Your task to perform on an android device: Go to network settings Image 0: 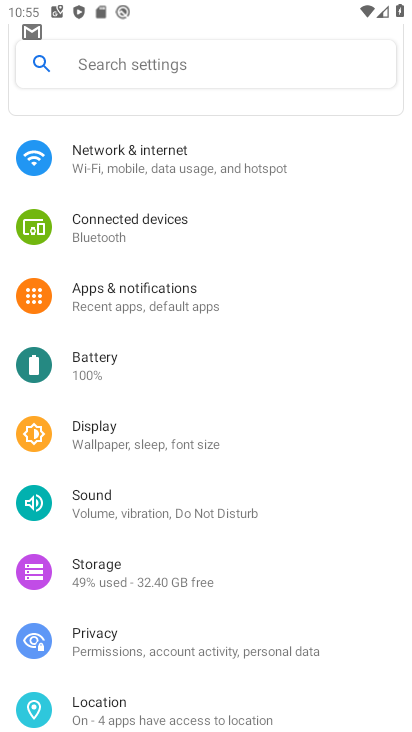
Step 0: press home button
Your task to perform on an android device: Go to network settings Image 1: 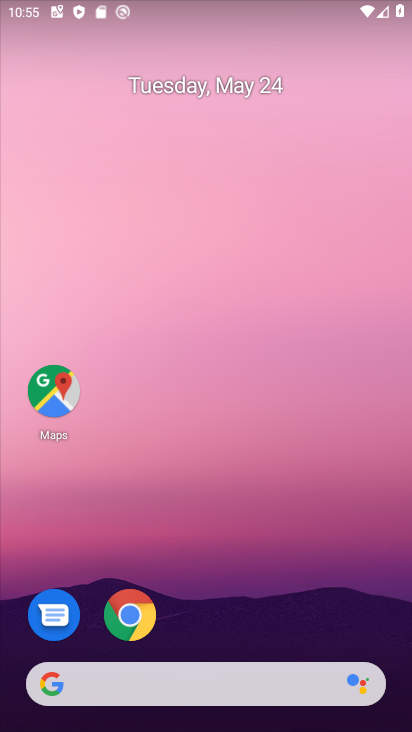
Step 1: press home button
Your task to perform on an android device: Go to network settings Image 2: 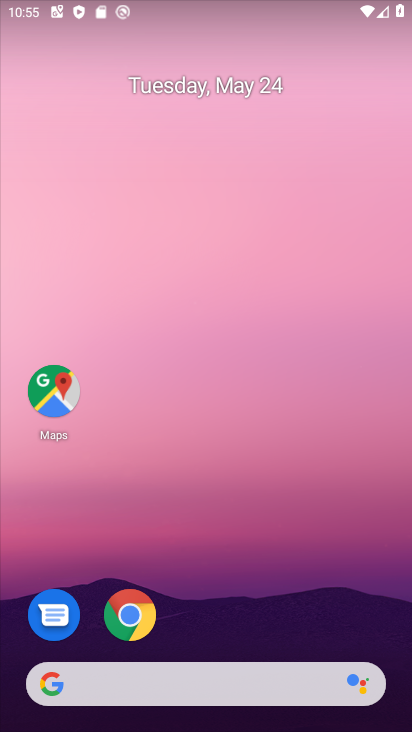
Step 2: press home button
Your task to perform on an android device: Go to network settings Image 3: 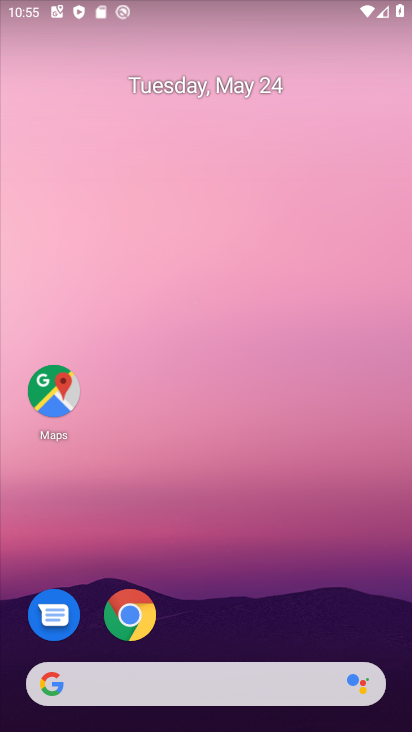
Step 3: press home button
Your task to perform on an android device: Go to network settings Image 4: 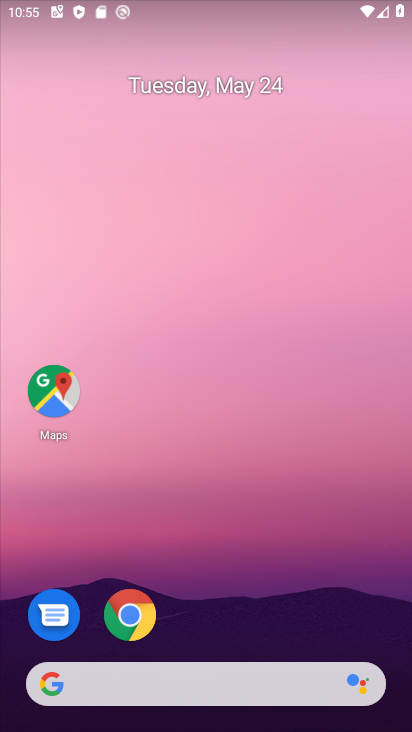
Step 4: press home button
Your task to perform on an android device: Go to network settings Image 5: 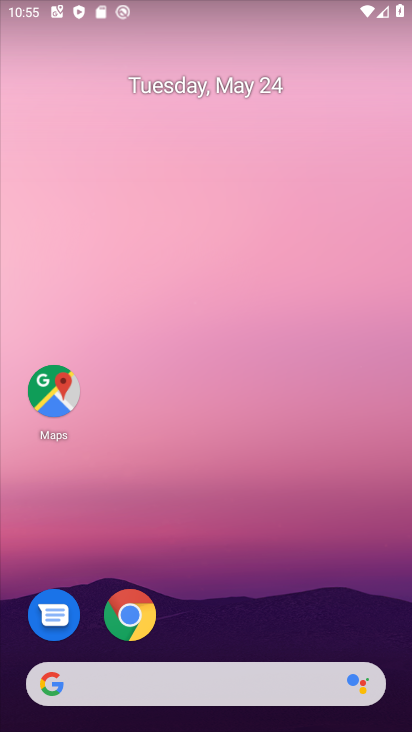
Step 5: drag from (268, 521) to (254, 272)
Your task to perform on an android device: Go to network settings Image 6: 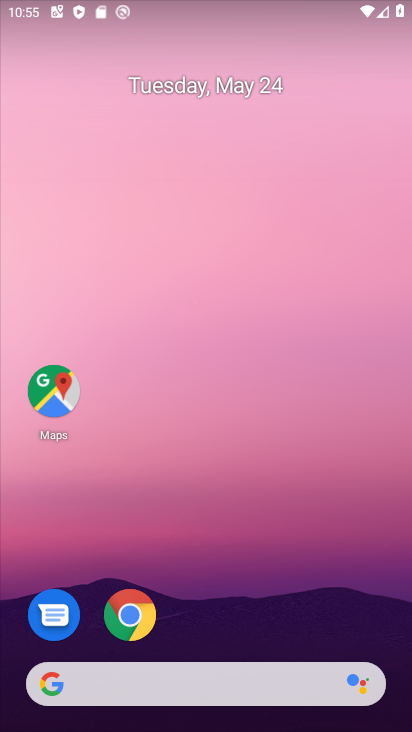
Step 6: drag from (265, 601) to (195, 224)
Your task to perform on an android device: Go to network settings Image 7: 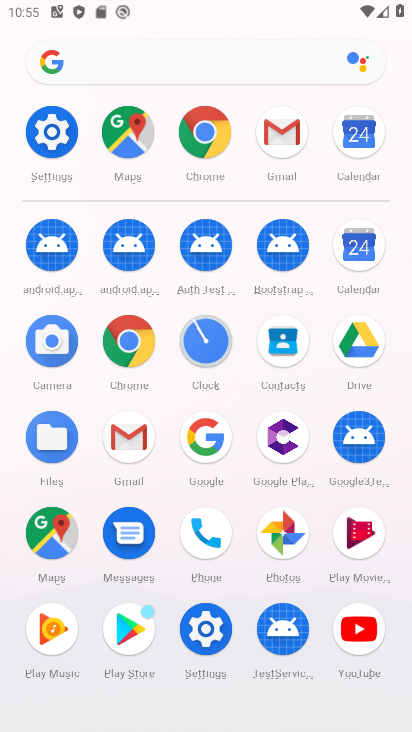
Step 7: click (273, 144)
Your task to perform on an android device: Go to network settings Image 8: 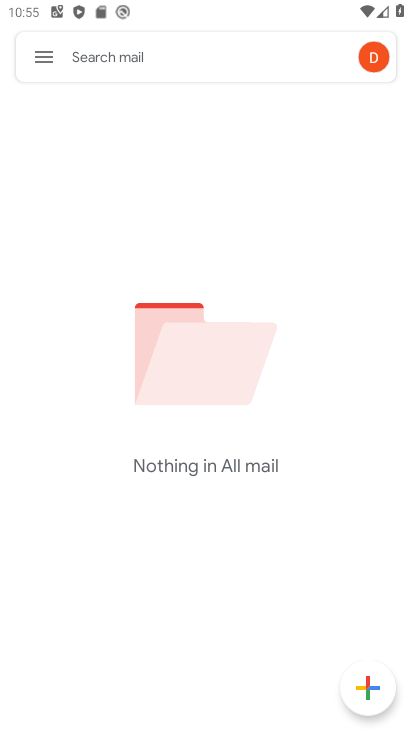
Step 8: click (48, 57)
Your task to perform on an android device: Go to network settings Image 9: 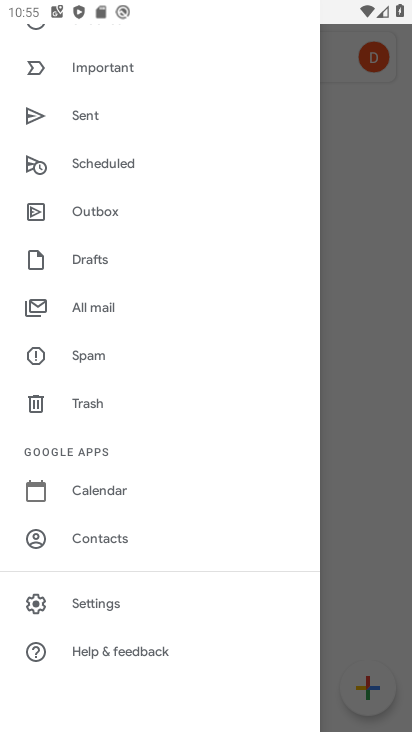
Step 9: click (84, 308)
Your task to perform on an android device: Go to network settings Image 10: 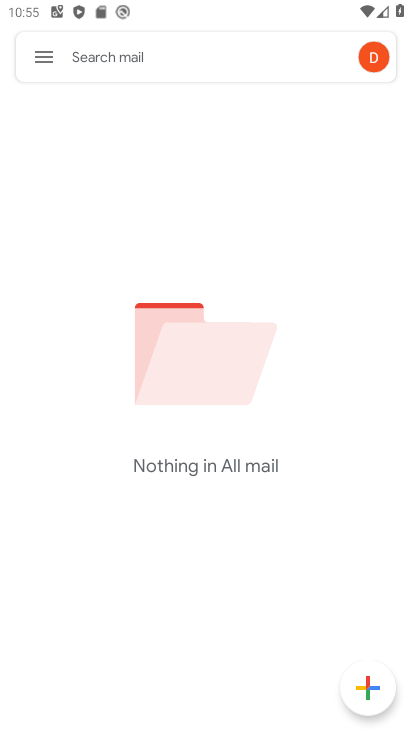
Step 10: press home button
Your task to perform on an android device: Go to network settings Image 11: 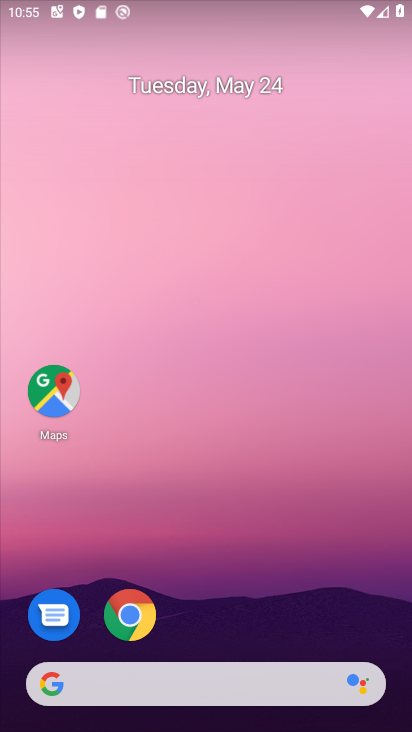
Step 11: drag from (276, 601) to (136, 166)
Your task to perform on an android device: Go to network settings Image 12: 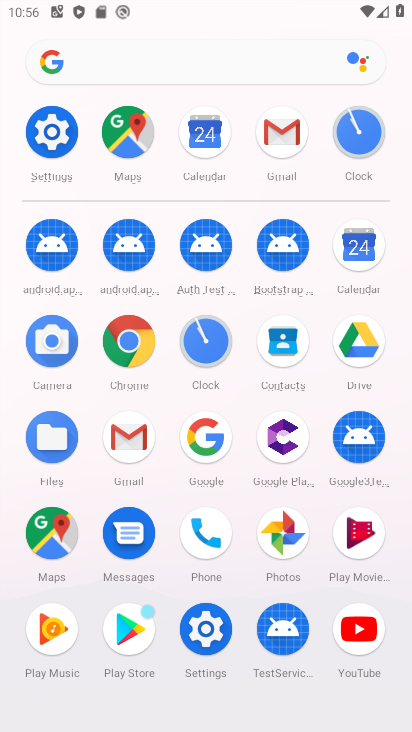
Step 12: click (67, 168)
Your task to perform on an android device: Go to network settings Image 13: 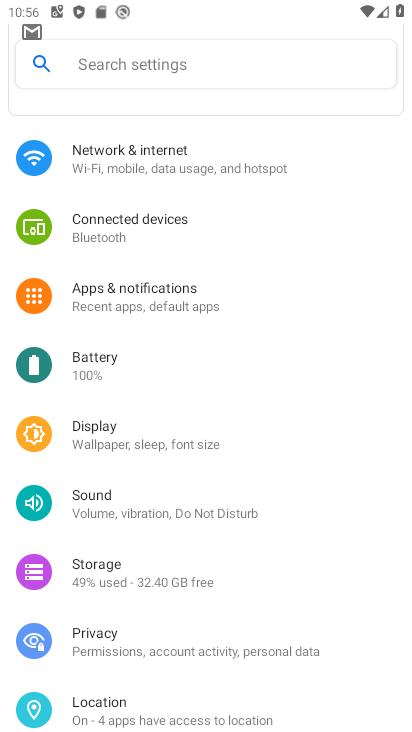
Step 13: click (48, 143)
Your task to perform on an android device: Go to network settings Image 14: 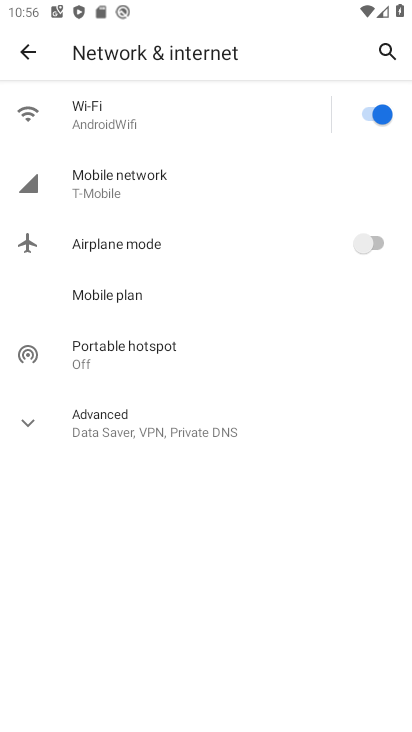
Step 14: task complete